Your task to perform on an android device: delete location history Image 0: 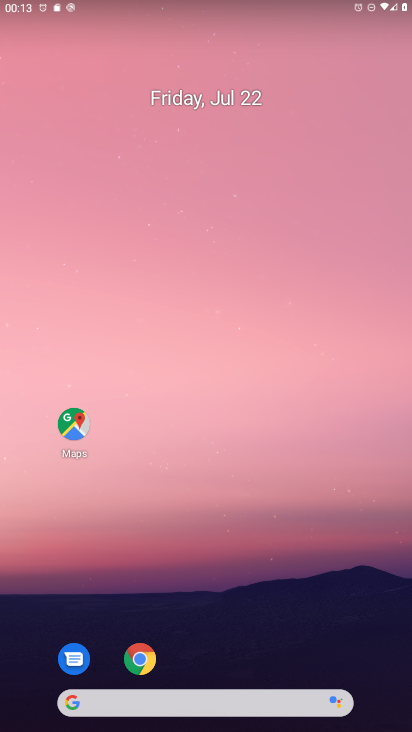
Step 0: click (72, 425)
Your task to perform on an android device: delete location history Image 1: 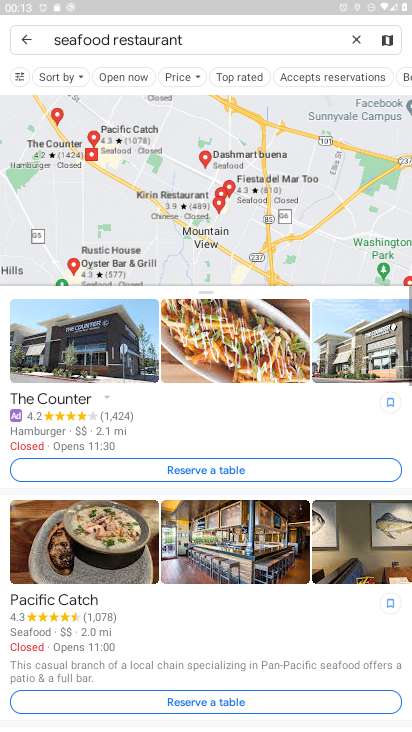
Step 1: press back button
Your task to perform on an android device: delete location history Image 2: 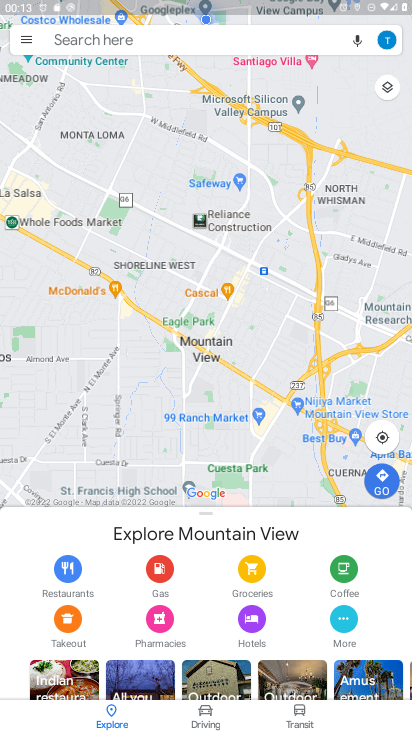
Step 2: click (26, 42)
Your task to perform on an android device: delete location history Image 3: 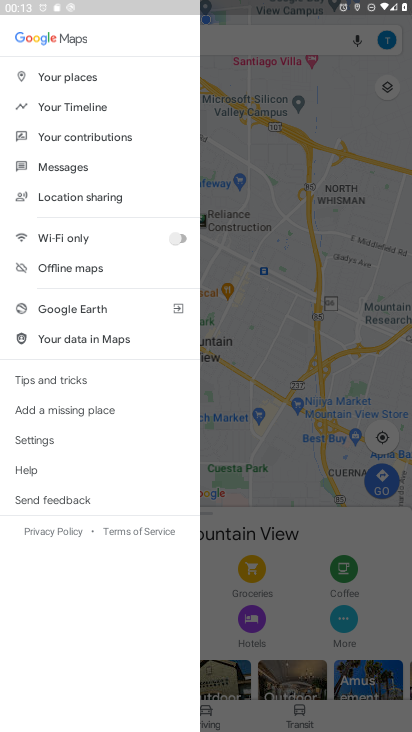
Step 3: click (35, 438)
Your task to perform on an android device: delete location history Image 4: 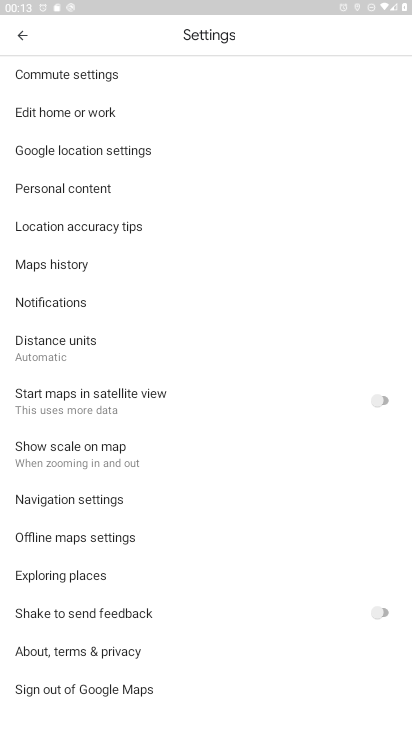
Step 4: click (69, 188)
Your task to perform on an android device: delete location history Image 5: 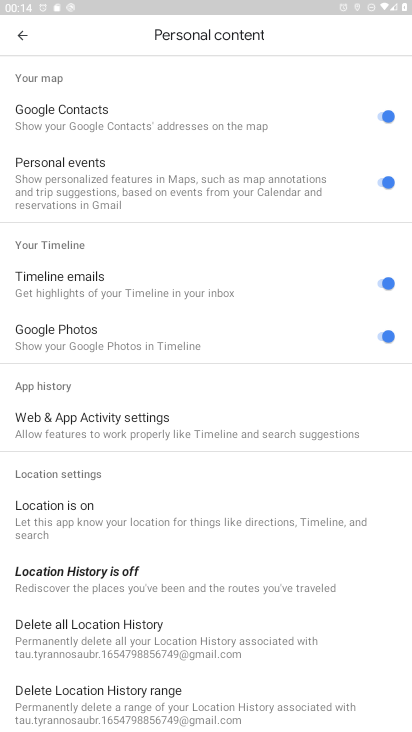
Step 5: click (125, 629)
Your task to perform on an android device: delete location history Image 6: 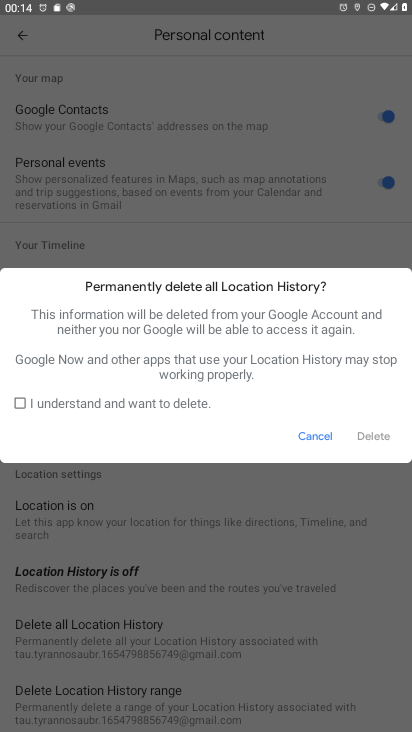
Step 6: click (21, 403)
Your task to perform on an android device: delete location history Image 7: 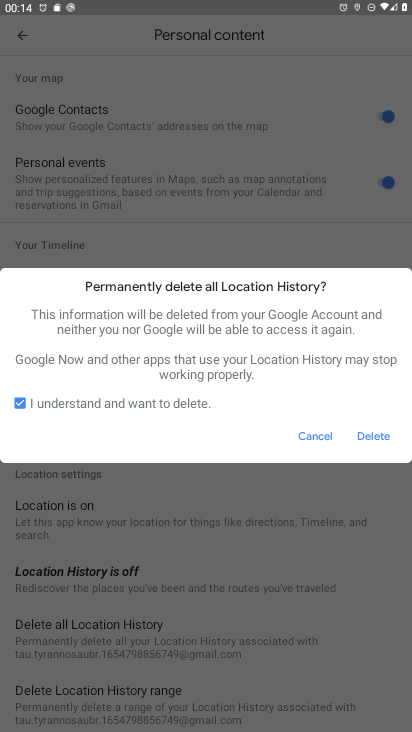
Step 7: click (374, 433)
Your task to perform on an android device: delete location history Image 8: 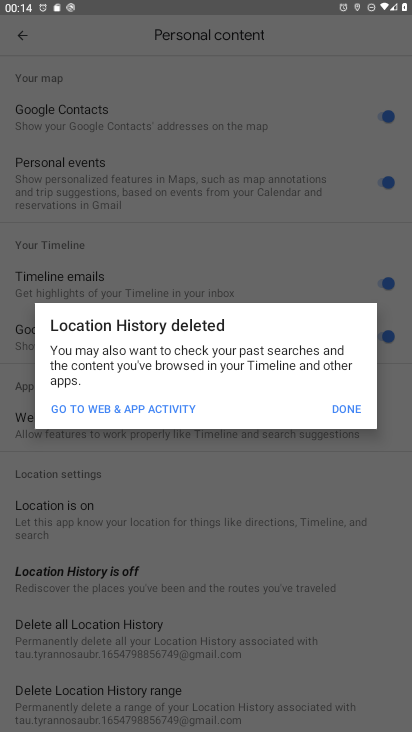
Step 8: click (344, 414)
Your task to perform on an android device: delete location history Image 9: 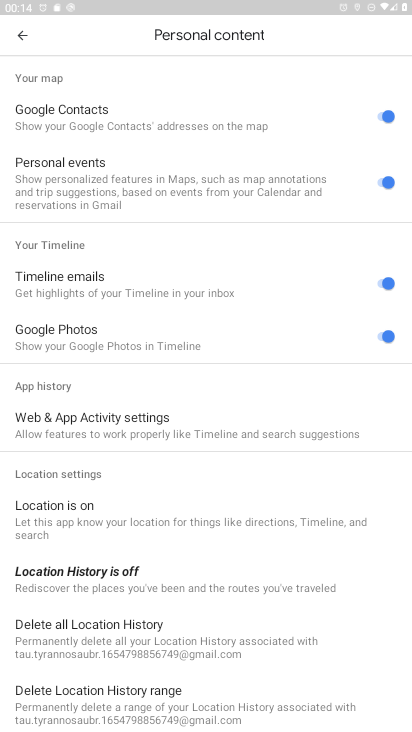
Step 9: task complete